Your task to perform on an android device: open a bookmark in the chrome app Image 0: 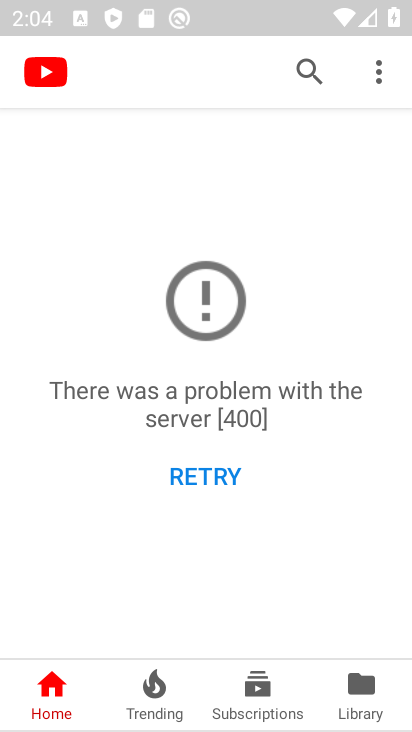
Step 0: press home button
Your task to perform on an android device: open a bookmark in the chrome app Image 1: 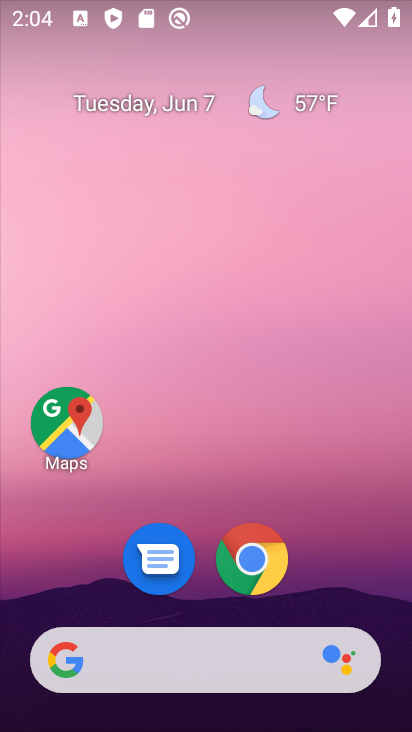
Step 1: click (244, 563)
Your task to perform on an android device: open a bookmark in the chrome app Image 2: 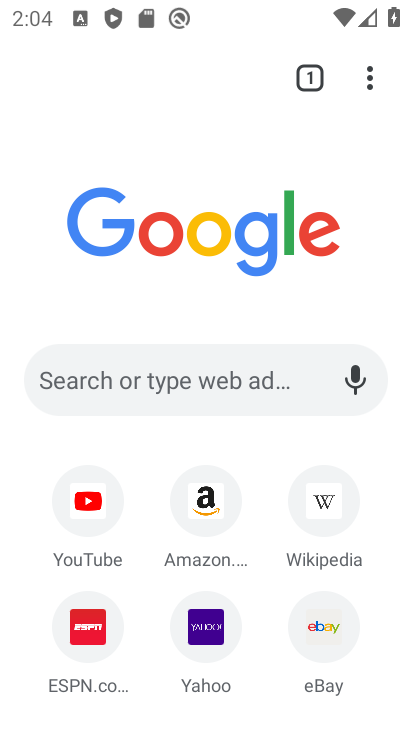
Step 2: click (376, 74)
Your task to perform on an android device: open a bookmark in the chrome app Image 3: 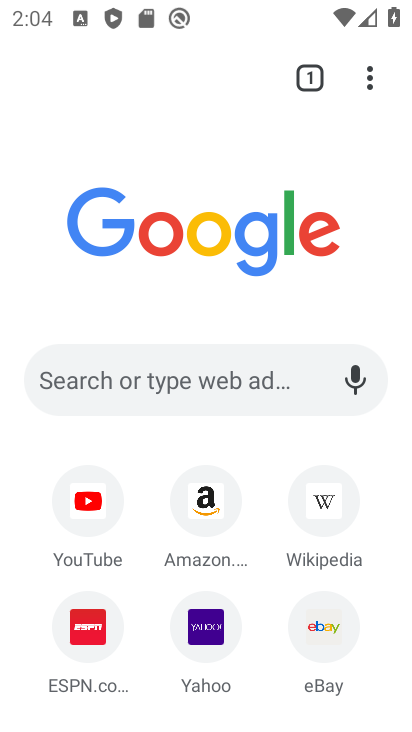
Step 3: click (376, 74)
Your task to perform on an android device: open a bookmark in the chrome app Image 4: 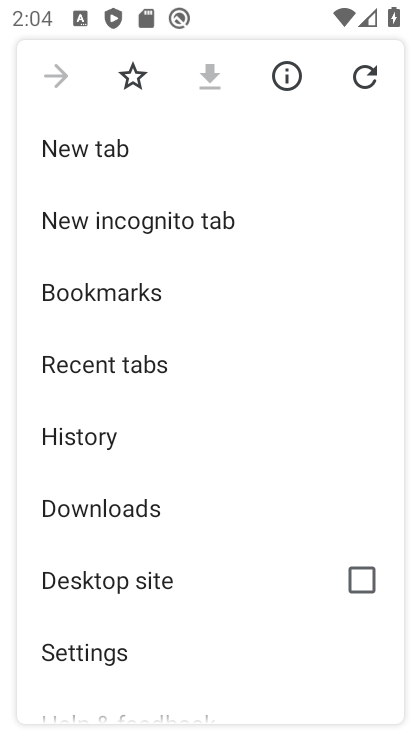
Step 4: click (128, 297)
Your task to perform on an android device: open a bookmark in the chrome app Image 5: 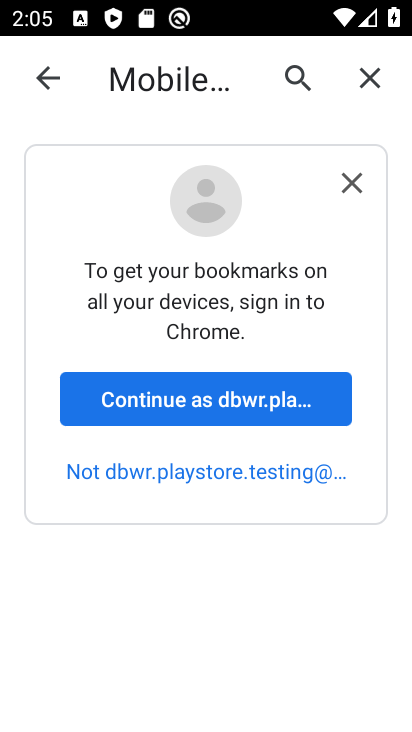
Step 5: click (356, 191)
Your task to perform on an android device: open a bookmark in the chrome app Image 6: 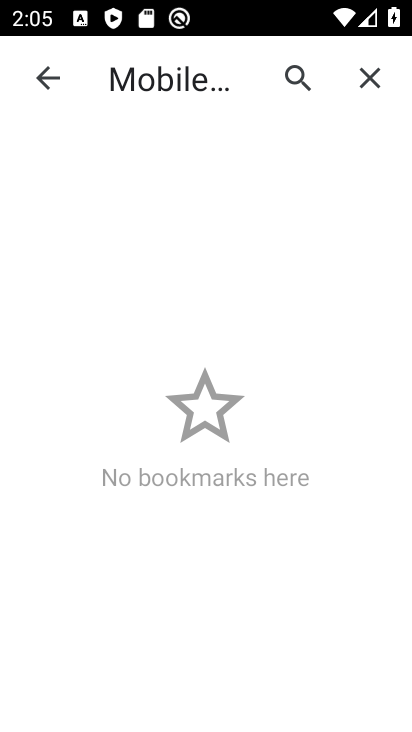
Step 6: task complete